Your task to perform on an android device: toggle wifi Image 0: 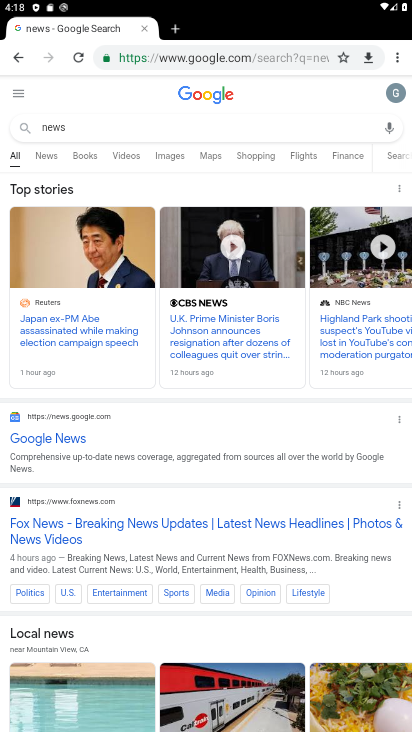
Step 0: press home button
Your task to perform on an android device: toggle wifi Image 1: 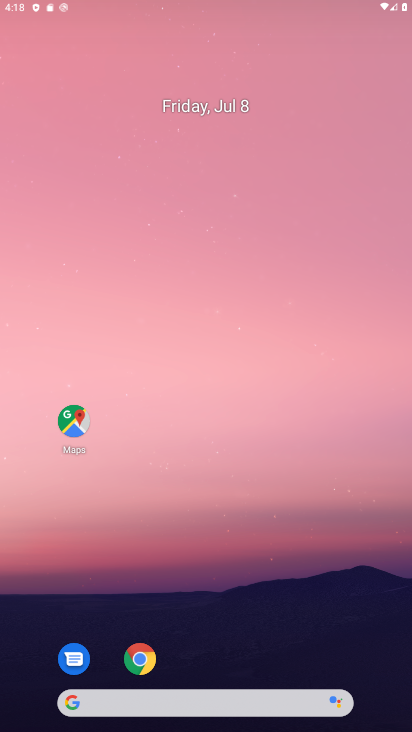
Step 1: drag from (353, 4) to (331, 587)
Your task to perform on an android device: toggle wifi Image 2: 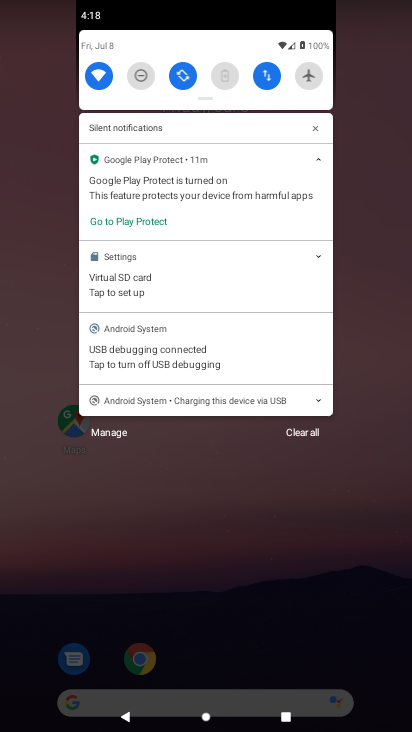
Step 2: click (97, 73)
Your task to perform on an android device: toggle wifi Image 3: 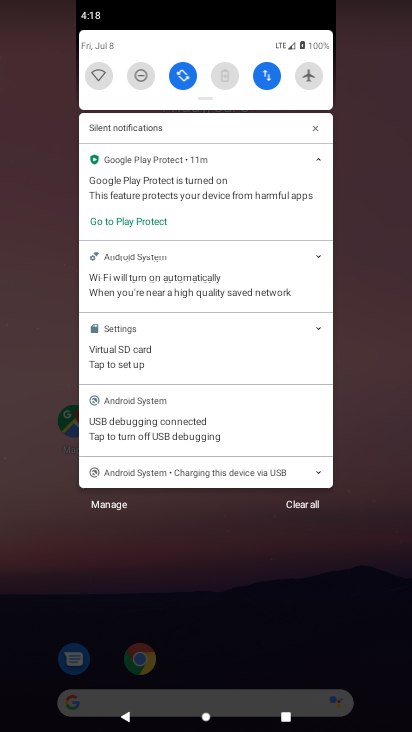
Step 3: task complete